Your task to perform on an android device: create a new album in the google photos Image 0: 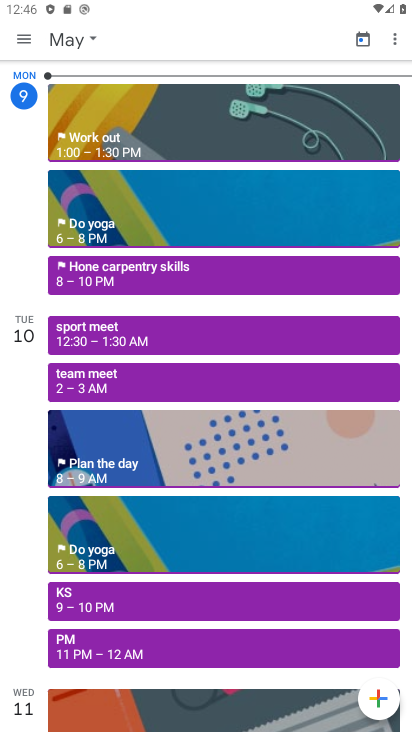
Step 0: press home button
Your task to perform on an android device: create a new album in the google photos Image 1: 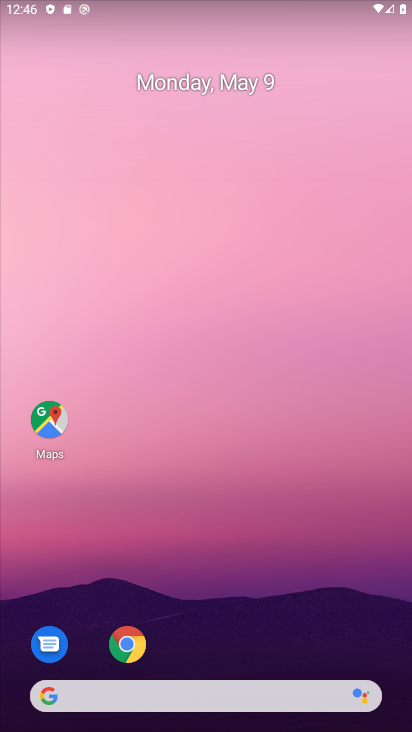
Step 1: drag from (248, 658) to (262, 1)
Your task to perform on an android device: create a new album in the google photos Image 2: 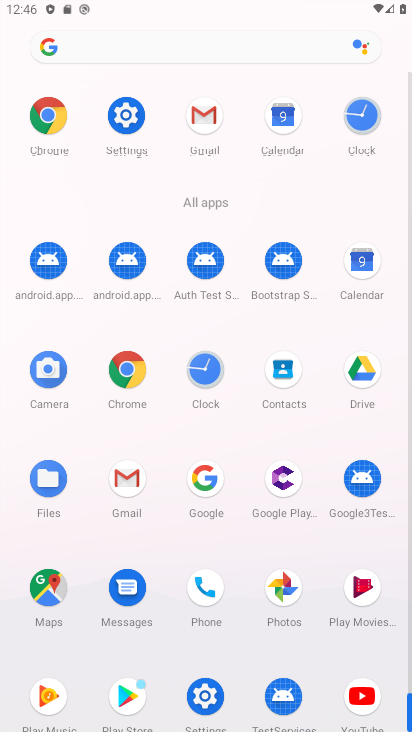
Step 2: click (290, 608)
Your task to perform on an android device: create a new album in the google photos Image 3: 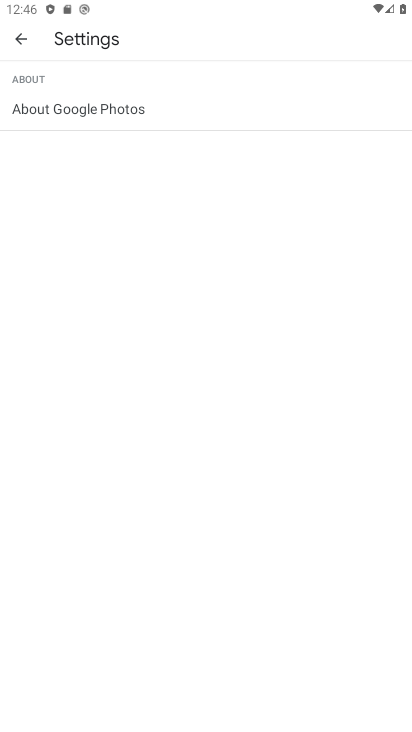
Step 3: click (81, 106)
Your task to perform on an android device: create a new album in the google photos Image 4: 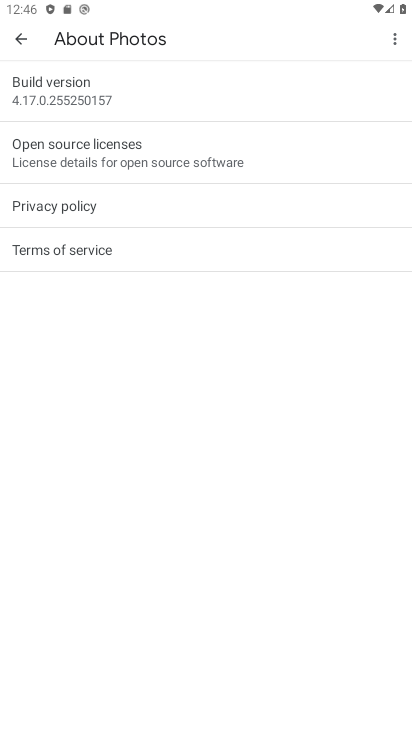
Step 4: click (16, 36)
Your task to perform on an android device: create a new album in the google photos Image 5: 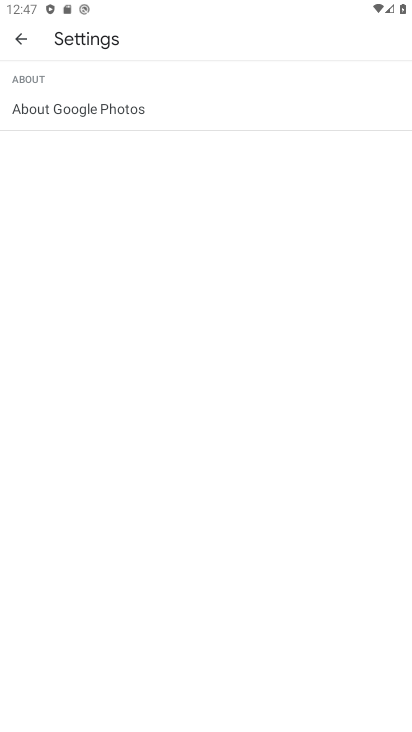
Step 5: click (16, 36)
Your task to perform on an android device: create a new album in the google photos Image 6: 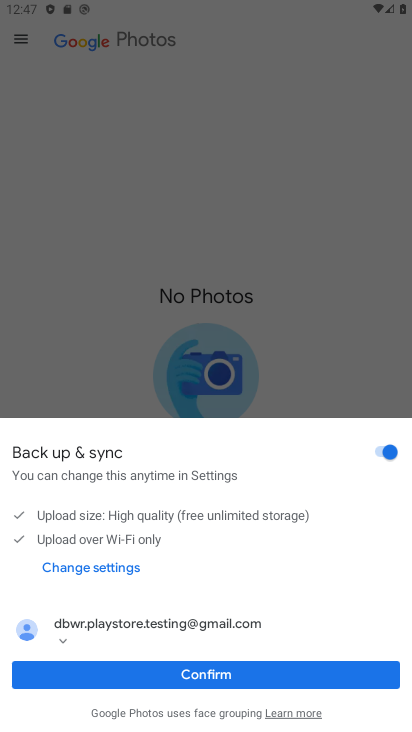
Step 6: click (212, 680)
Your task to perform on an android device: create a new album in the google photos Image 7: 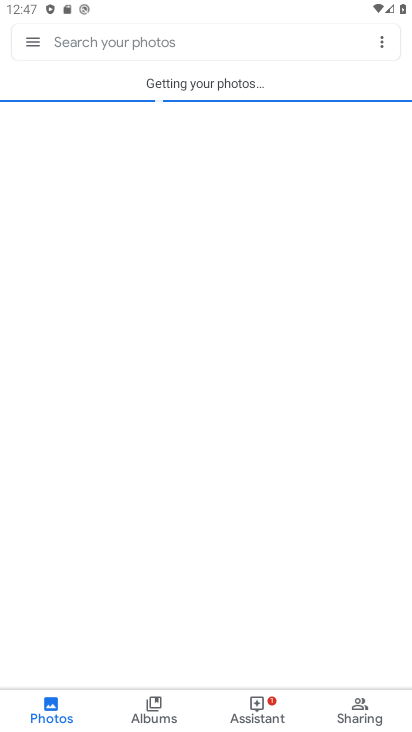
Step 7: click (162, 719)
Your task to perform on an android device: create a new album in the google photos Image 8: 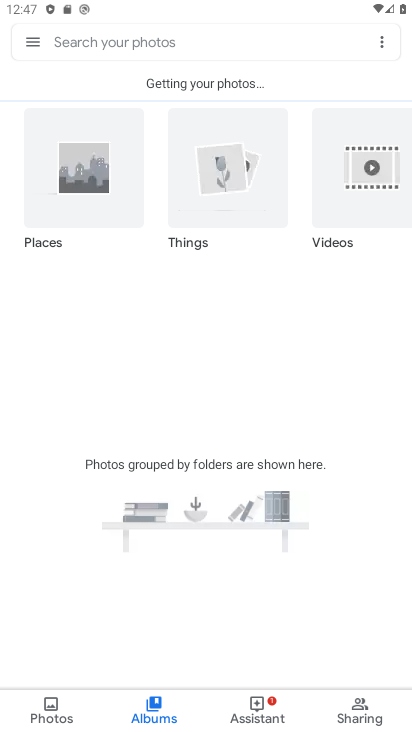
Step 8: drag from (213, 561) to (287, 286)
Your task to perform on an android device: create a new album in the google photos Image 9: 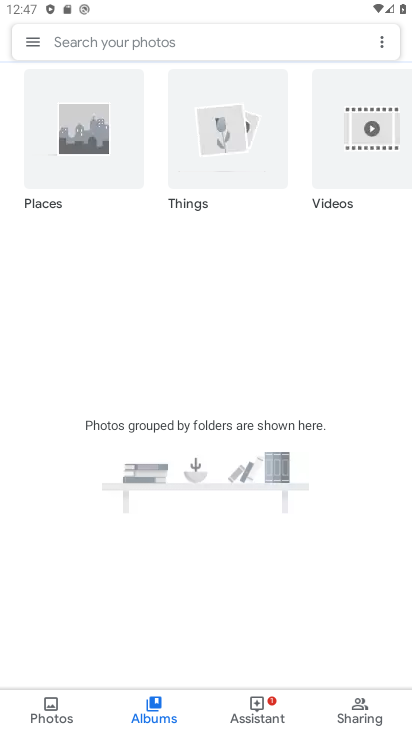
Step 9: drag from (263, 514) to (260, 281)
Your task to perform on an android device: create a new album in the google photos Image 10: 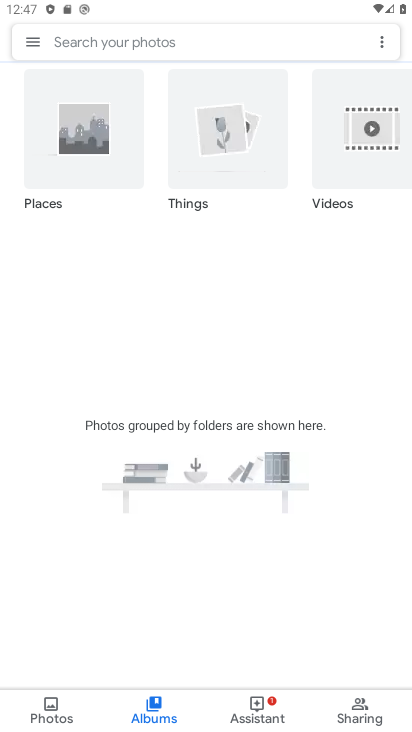
Step 10: drag from (269, 322) to (286, 684)
Your task to perform on an android device: create a new album in the google photos Image 11: 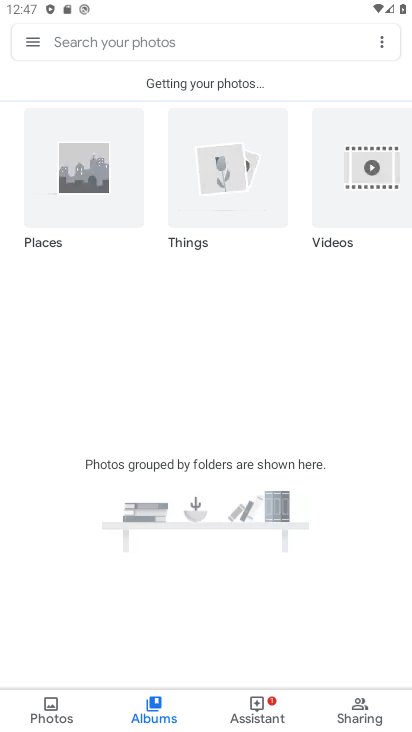
Step 11: click (388, 41)
Your task to perform on an android device: create a new album in the google photos Image 12: 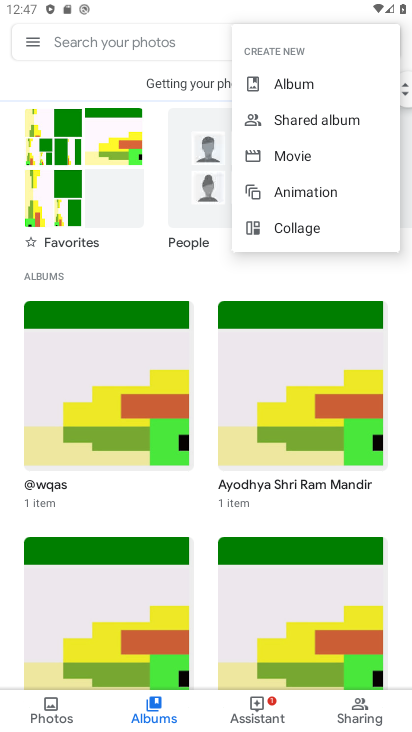
Step 12: click (300, 87)
Your task to perform on an android device: create a new album in the google photos Image 13: 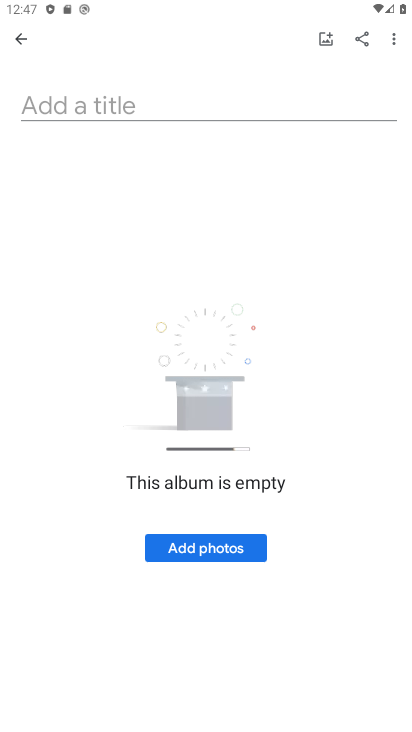
Step 13: click (148, 98)
Your task to perform on an android device: create a new album in the google photos Image 14: 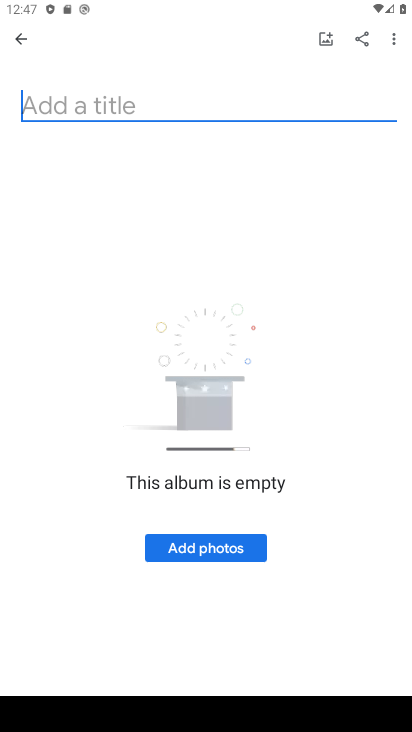
Step 14: type "Ashwani"
Your task to perform on an android device: create a new album in the google photos Image 15: 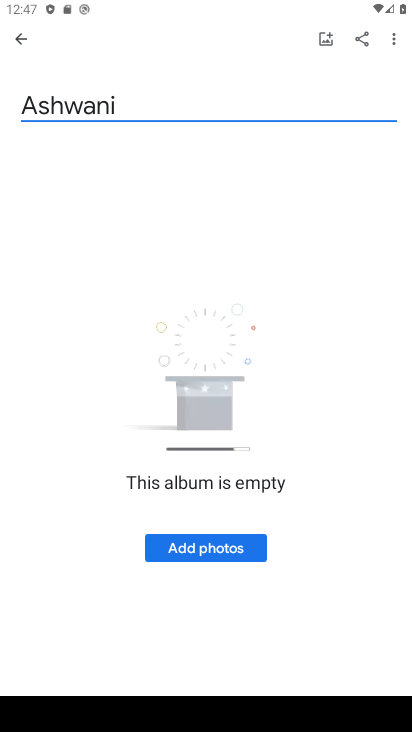
Step 15: click (206, 542)
Your task to perform on an android device: create a new album in the google photos Image 16: 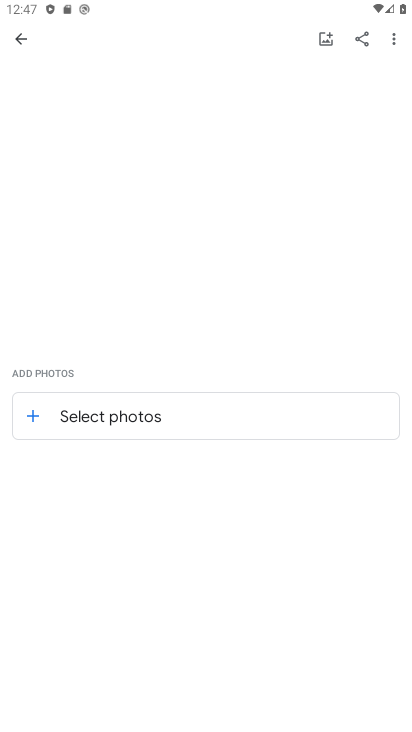
Step 16: click (113, 415)
Your task to perform on an android device: create a new album in the google photos Image 17: 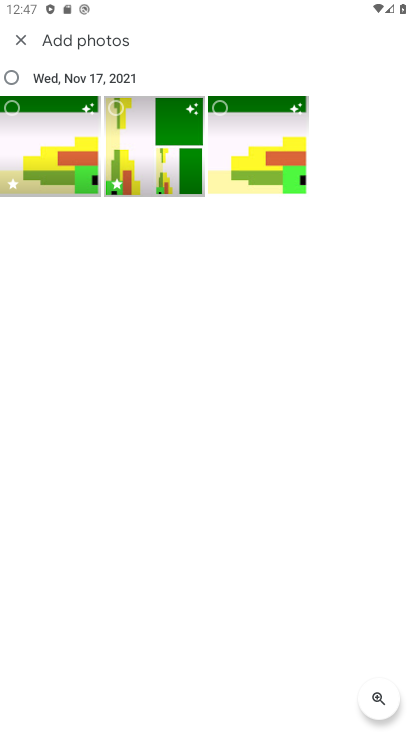
Step 17: click (17, 73)
Your task to perform on an android device: create a new album in the google photos Image 18: 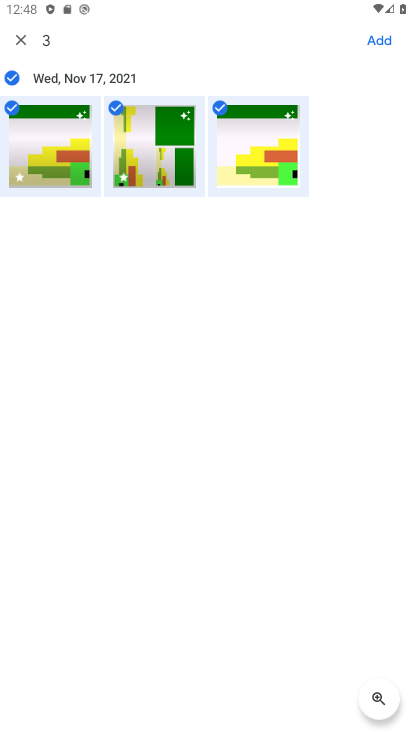
Step 18: click (375, 48)
Your task to perform on an android device: create a new album in the google photos Image 19: 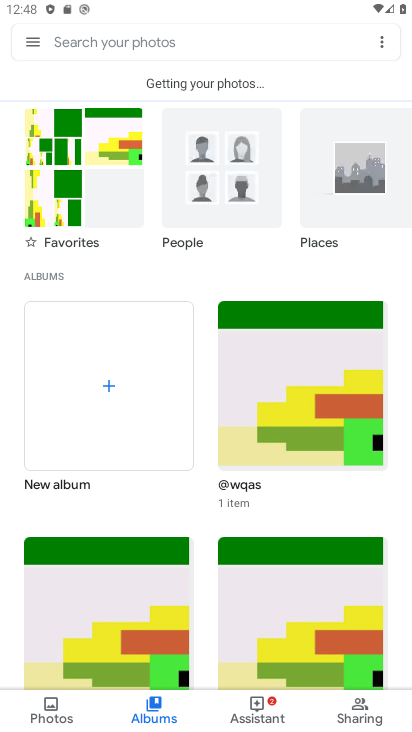
Step 19: task complete